Your task to perform on an android device: Go to eBay Image 0: 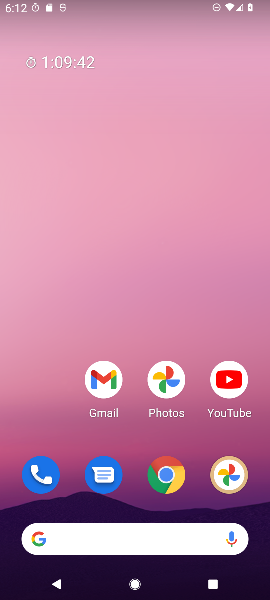
Step 0: press home button
Your task to perform on an android device: Go to eBay Image 1: 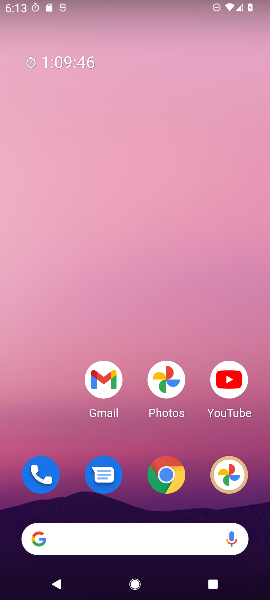
Step 1: drag from (60, 439) to (48, 150)
Your task to perform on an android device: Go to eBay Image 2: 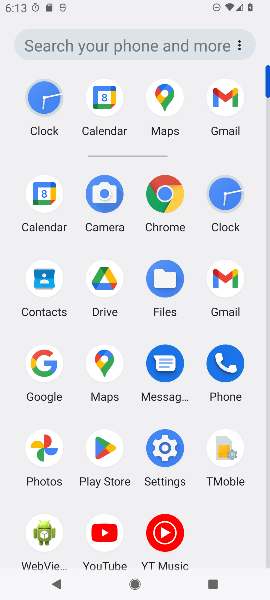
Step 2: click (168, 194)
Your task to perform on an android device: Go to eBay Image 3: 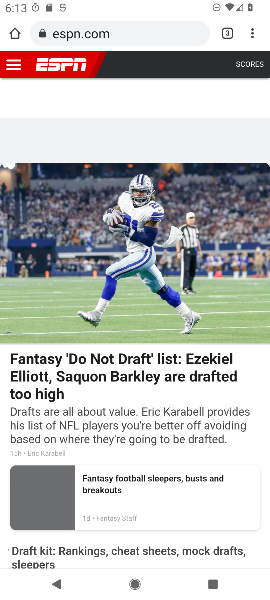
Step 3: click (137, 35)
Your task to perform on an android device: Go to eBay Image 4: 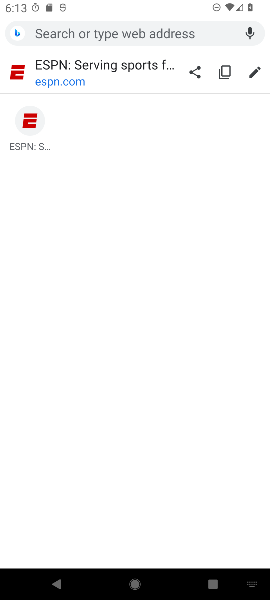
Step 4: type "ebay"
Your task to perform on an android device: Go to eBay Image 5: 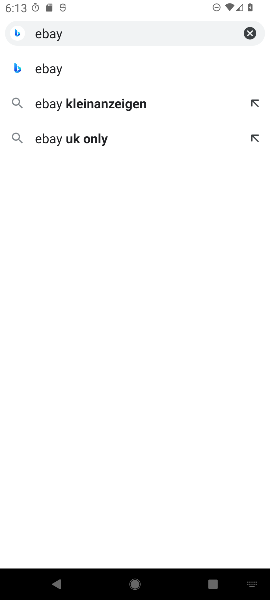
Step 5: click (67, 72)
Your task to perform on an android device: Go to eBay Image 6: 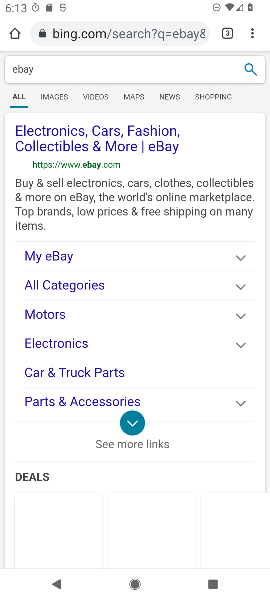
Step 6: task complete